Your task to perform on an android device: Open the calendar app, open the side menu, and click the "Day" option Image 0: 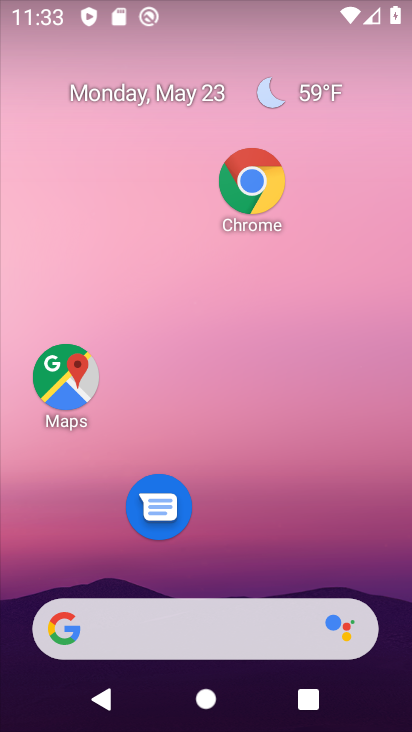
Step 0: drag from (296, 550) to (238, 286)
Your task to perform on an android device: Open the calendar app, open the side menu, and click the "Day" option Image 1: 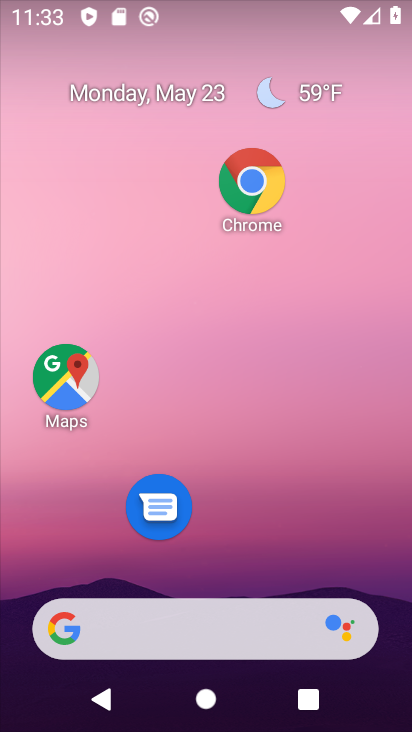
Step 1: drag from (248, 531) to (263, 246)
Your task to perform on an android device: Open the calendar app, open the side menu, and click the "Day" option Image 2: 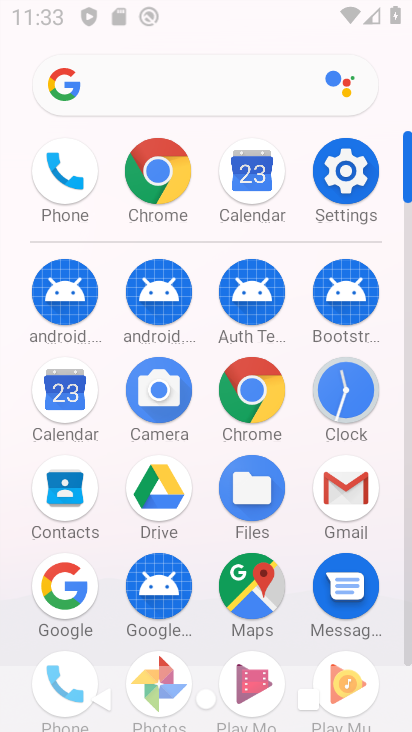
Step 2: click (82, 383)
Your task to perform on an android device: Open the calendar app, open the side menu, and click the "Day" option Image 3: 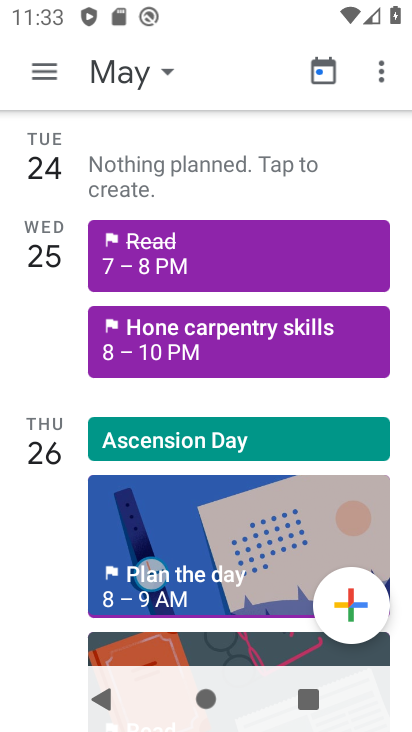
Step 3: click (44, 59)
Your task to perform on an android device: Open the calendar app, open the side menu, and click the "Day" option Image 4: 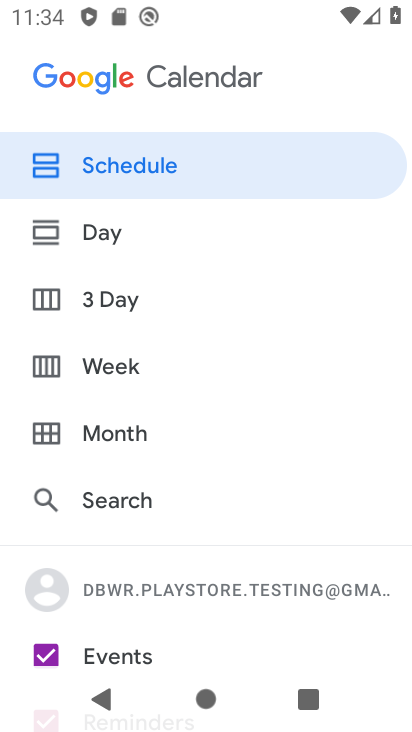
Step 4: click (126, 234)
Your task to perform on an android device: Open the calendar app, open the side menu, and click the "Day" option Image 5: 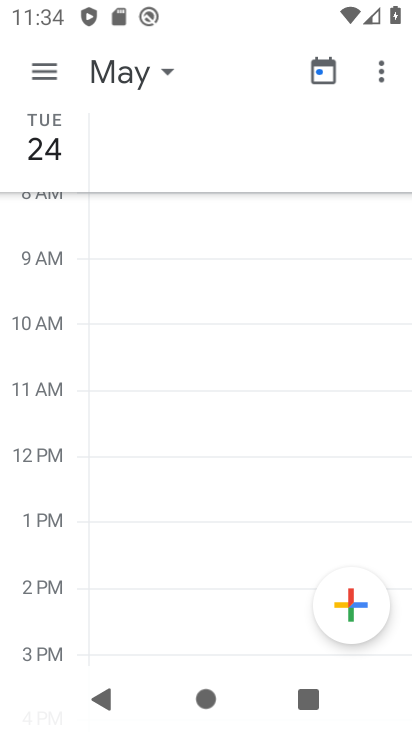
Step 5: task complete